Your task to perform on an android device: open chrome and create a bookmark for the current page Image 0: 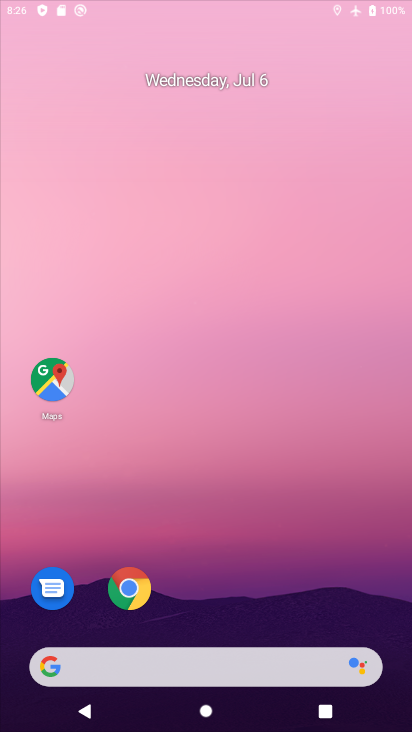
Step 0: drag from (230, 512) to (163, 30)
Your task to perform on an android device: open chrome and create a bookmark for the current page Image 1: 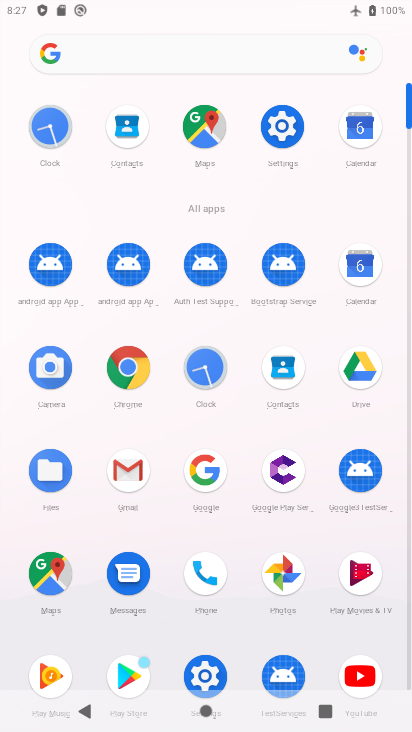
Step 1: click (127, 364)
Your task to perform on an android device: open chrome and create a bookmark for the current page Image 2: 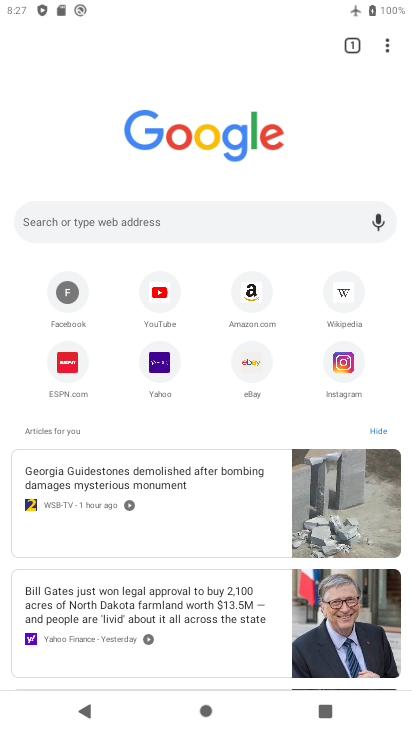
Step 2: click (386, 39)
Your task to perform on an android device: open chrome and create a bookmark for the current page Image 3: 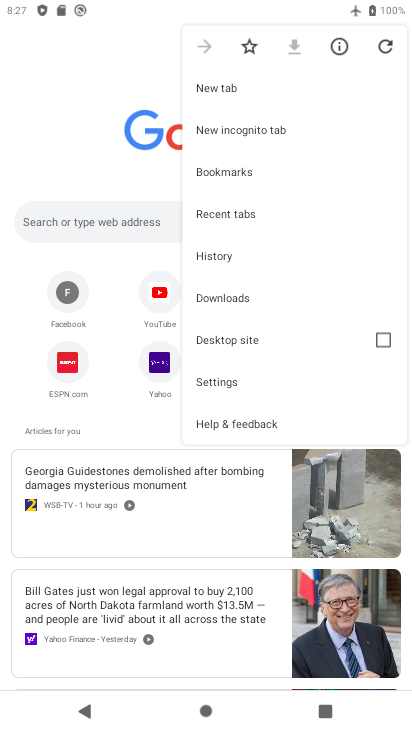
Step 3: click (249, 45)
Your task to perform on an android device: open chrome and create a bookmark for the current page Image 4: 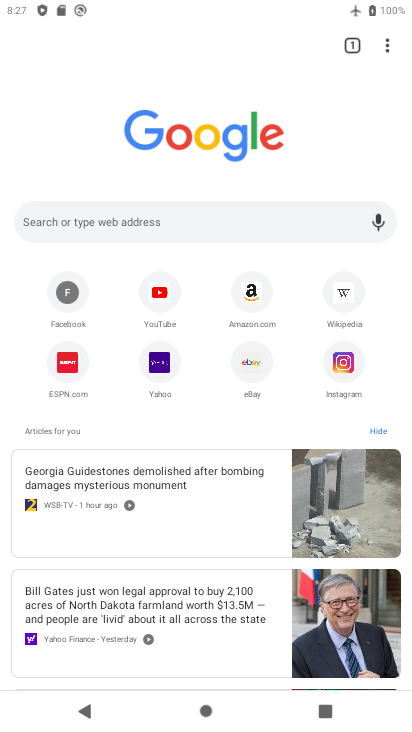
Step 4: task complete